Your task to perform on an android device: Go to battery settings Image 0: 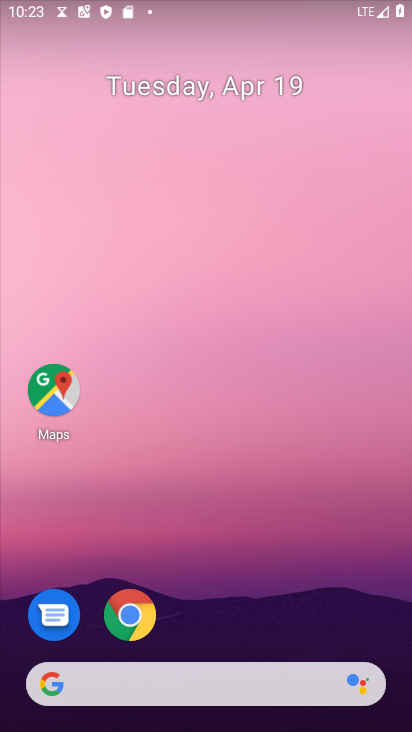
Step 0: click (321, 125)
Your task to perform on an android device: Go to battery settings Image 1: 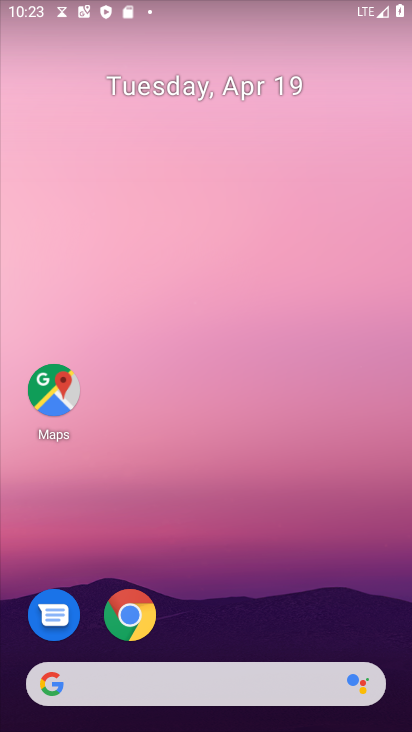
Step 1: drag from (200, 611) to (230, 42)
Your task to perform on an android device: Go to battery settings Image 2: 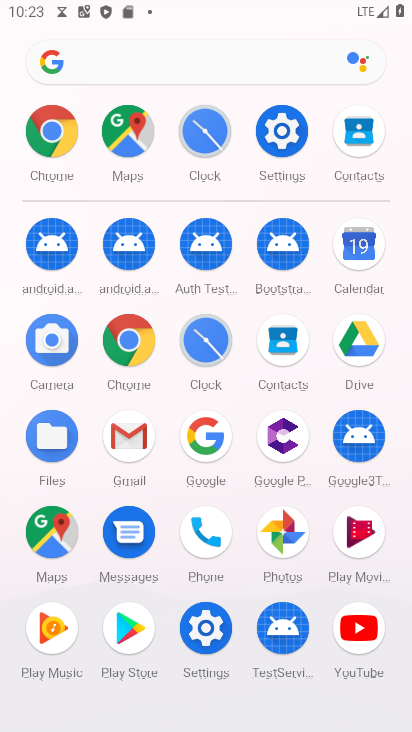
Step 2: click (198, 624)
Your task to perform on an android device: Go to battery settings Image 3: 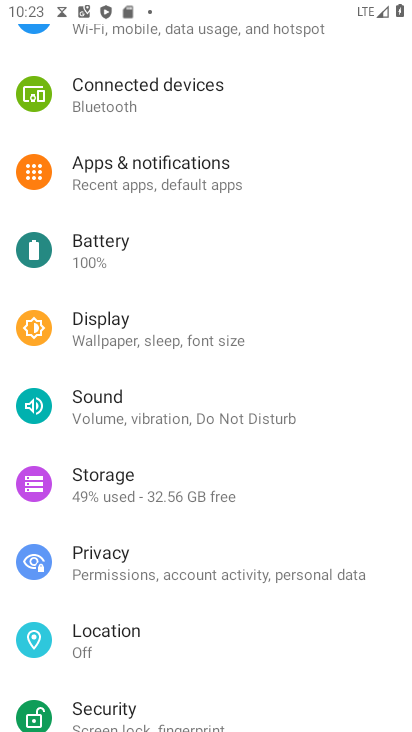
Step 3: drag from (186, 188) to (311, 689)
Your task to perform on an android device: Go to battery settings Image 4: 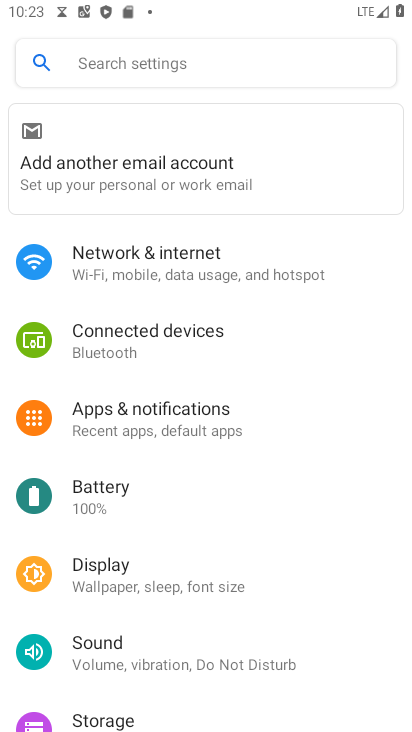
Step 4: drag from (217, 512) to (342, 82)
Your task to perform on an android device: Go to battery settings Image 5: 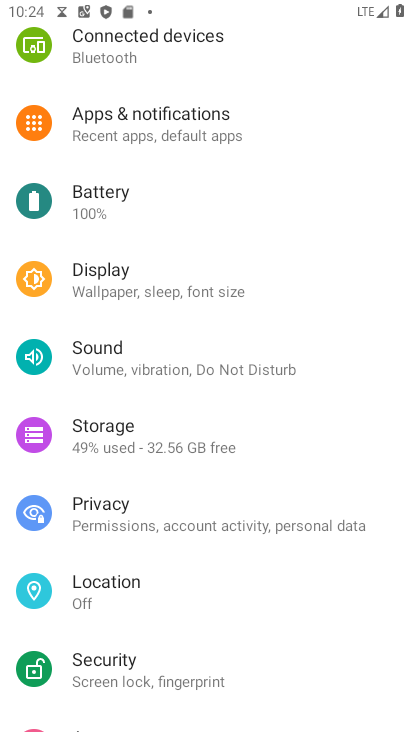
Step 5: drag from (228, 629) to (338, 250)
Your task to perform on an android device: Go to battery settings Image 6: 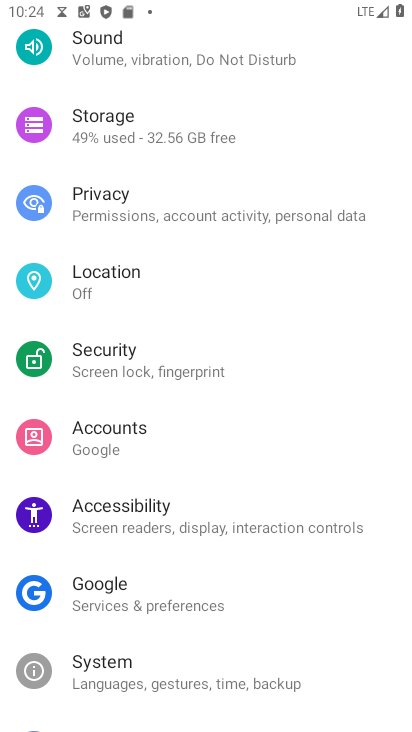
Step 6: drag from (261, 149) to (293, 656)
Your task to perform on an android device: Go to battery settings Image 7: 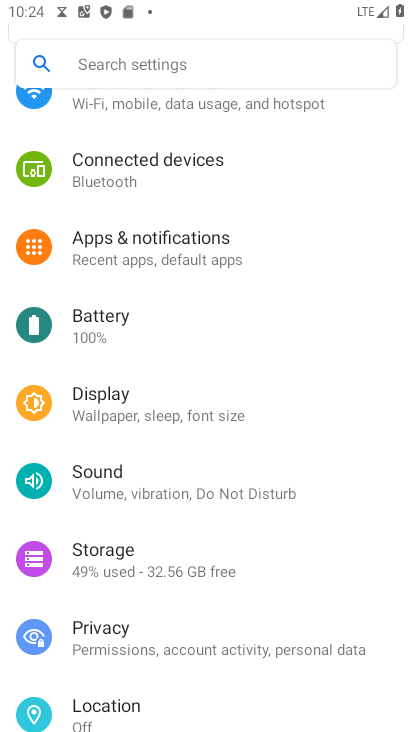
Step 7: click (144, 326)
Your task to perform on an android device: Go to battery settings Image 8: 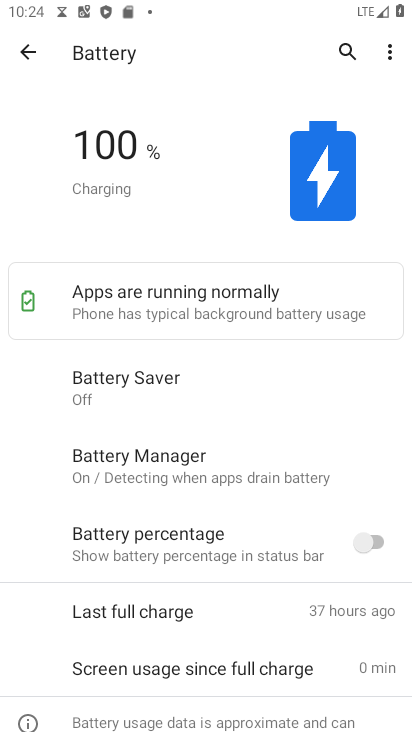
Step 8: drag from (223, 634) to (303, 189)
Your task to perform on an android device: Go to battery settings Image 9: 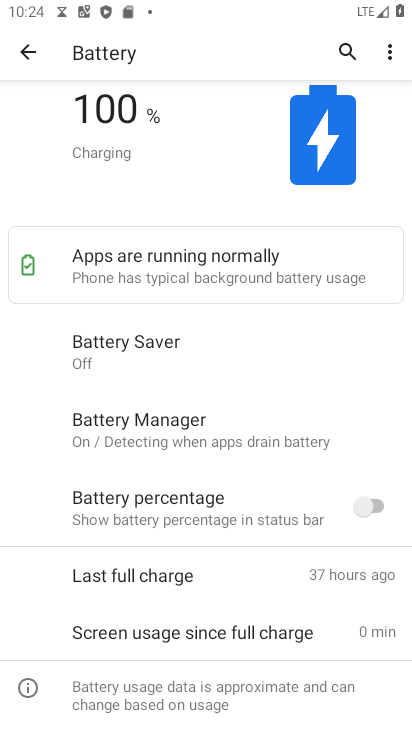
Step 9: drag from (267, 649) to (333, 326)
Your task to perform on an android device: Go to battery settings Image 10: 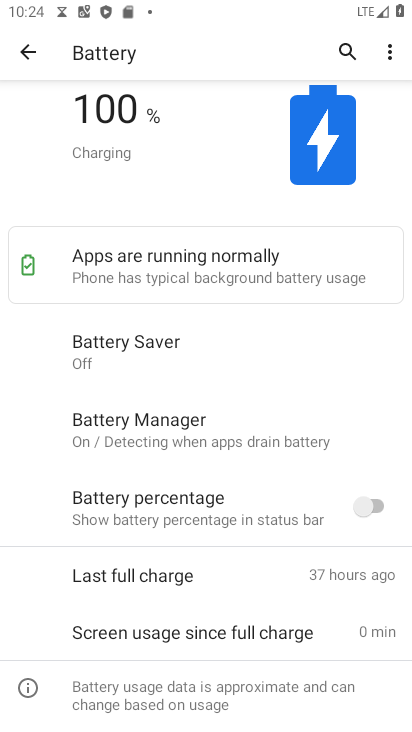
Step 10: drag from (248, 544) to (289, 387)
Your task to perform on an android device: Go to battery settings Image 11: 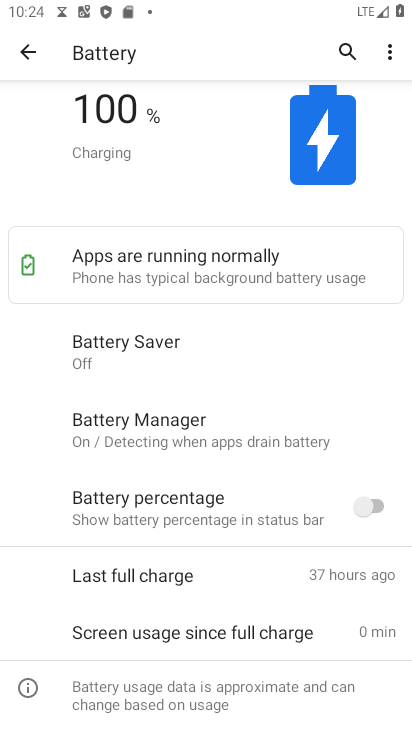
Step 11: drag from (255, 631) to (317, 413)
Your task to perform on an android device: Go to battery settings Image 12: 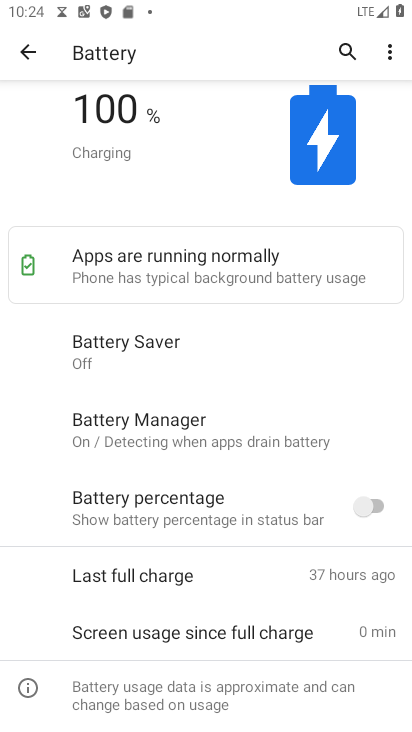
Step 12: drag from (186, 622) to (293, 177)
Your task to perform on an android device: Go to battery settings Image 13: 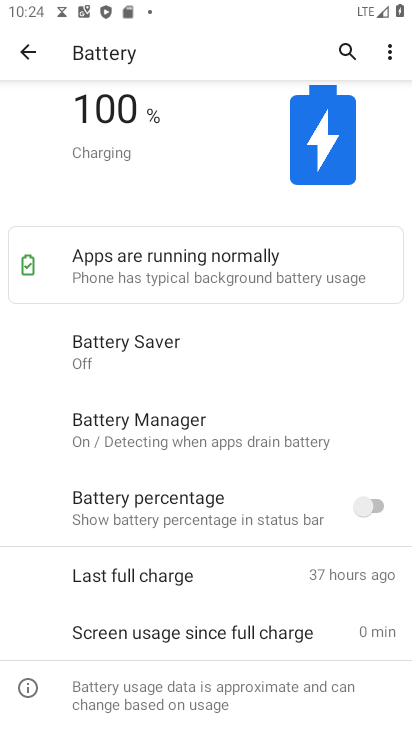
Step 13: drag from (203, 312) to (350, 703)
Your task to perform on an android device: Go to battery settings Image 14: 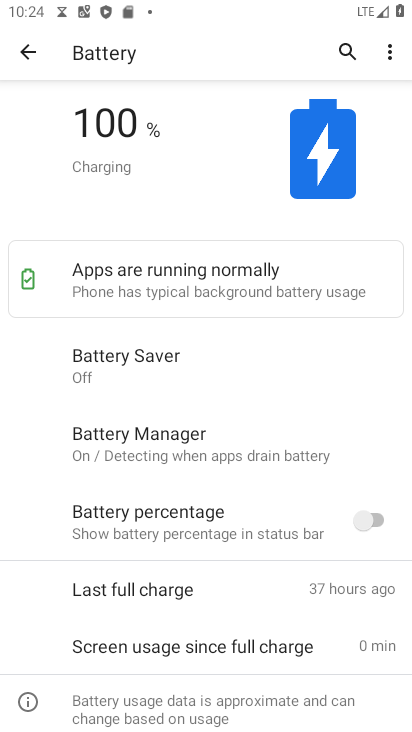
Step 14: click (394, 55)
Your task to perform on an android device: Go to battery settings Image 15: 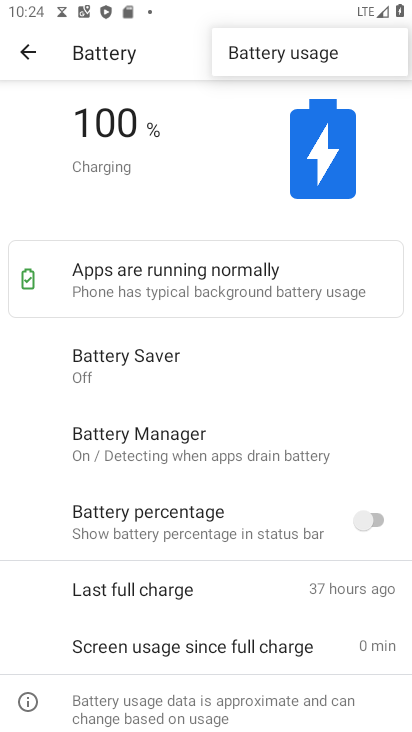
Step 15: click (304, 52)
Your task to perform on an android device: Go to battery settings Image 16: 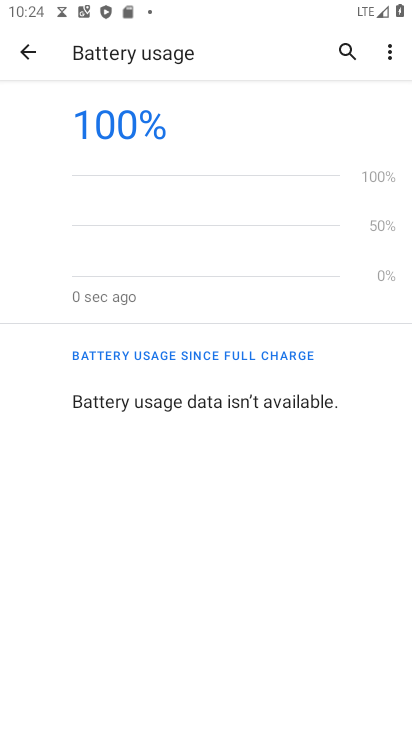
Step 16: drag from (234, 116) to (273, 713)
Your task to perform on an android device: Go to battery settings Image 17: 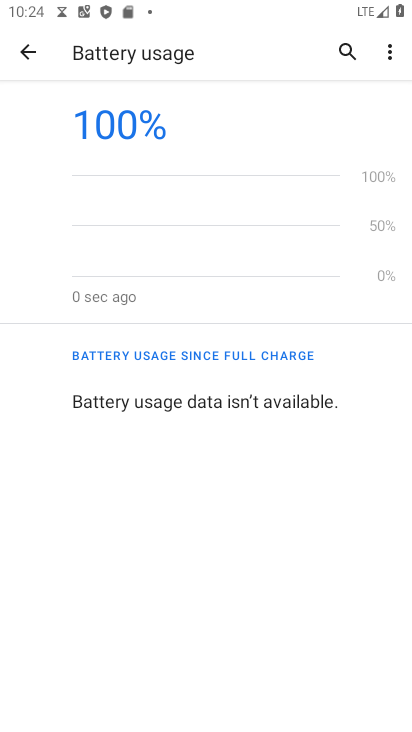
Step 17: click (21, 49)
Your task to perform on an android device: Go to battery settings Image 18: 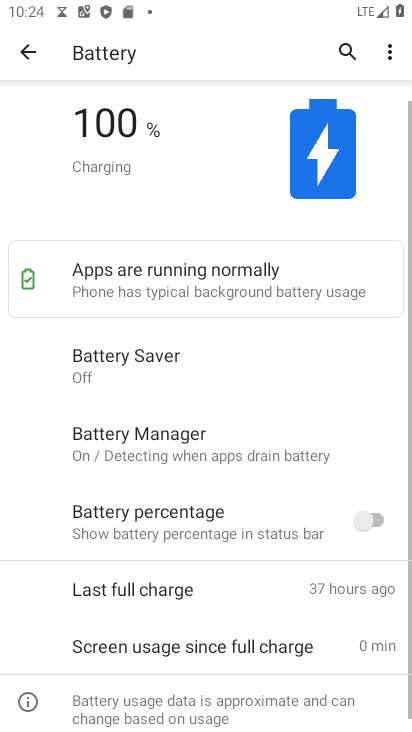
Step 18: task complete